Your task to perform on an android device: install app "Adobe Acrobat Reader: Edit PDF" Image 0: 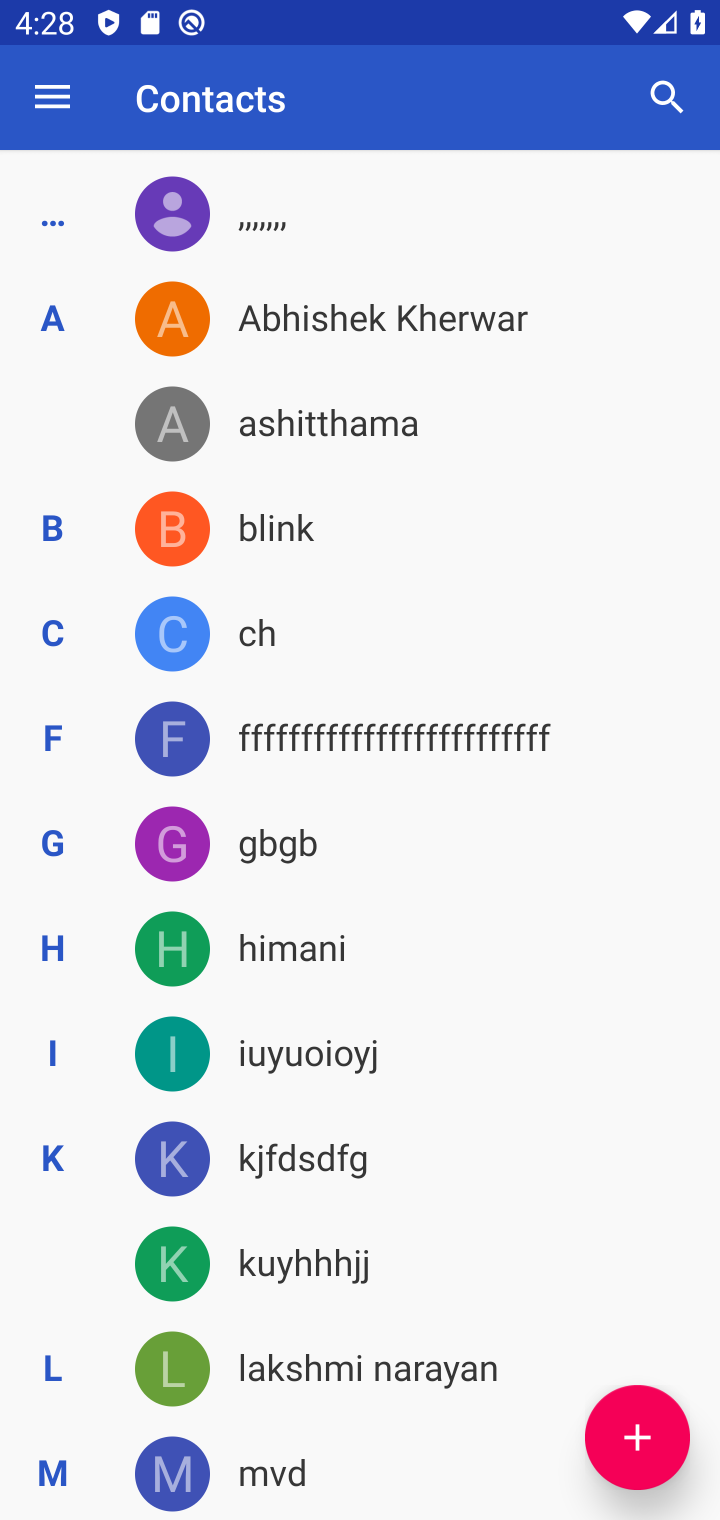
Step 0: press home button
Your task to perform on an android device: install app "Adobe Acrobat Reader: Edit PDF" Image 1: 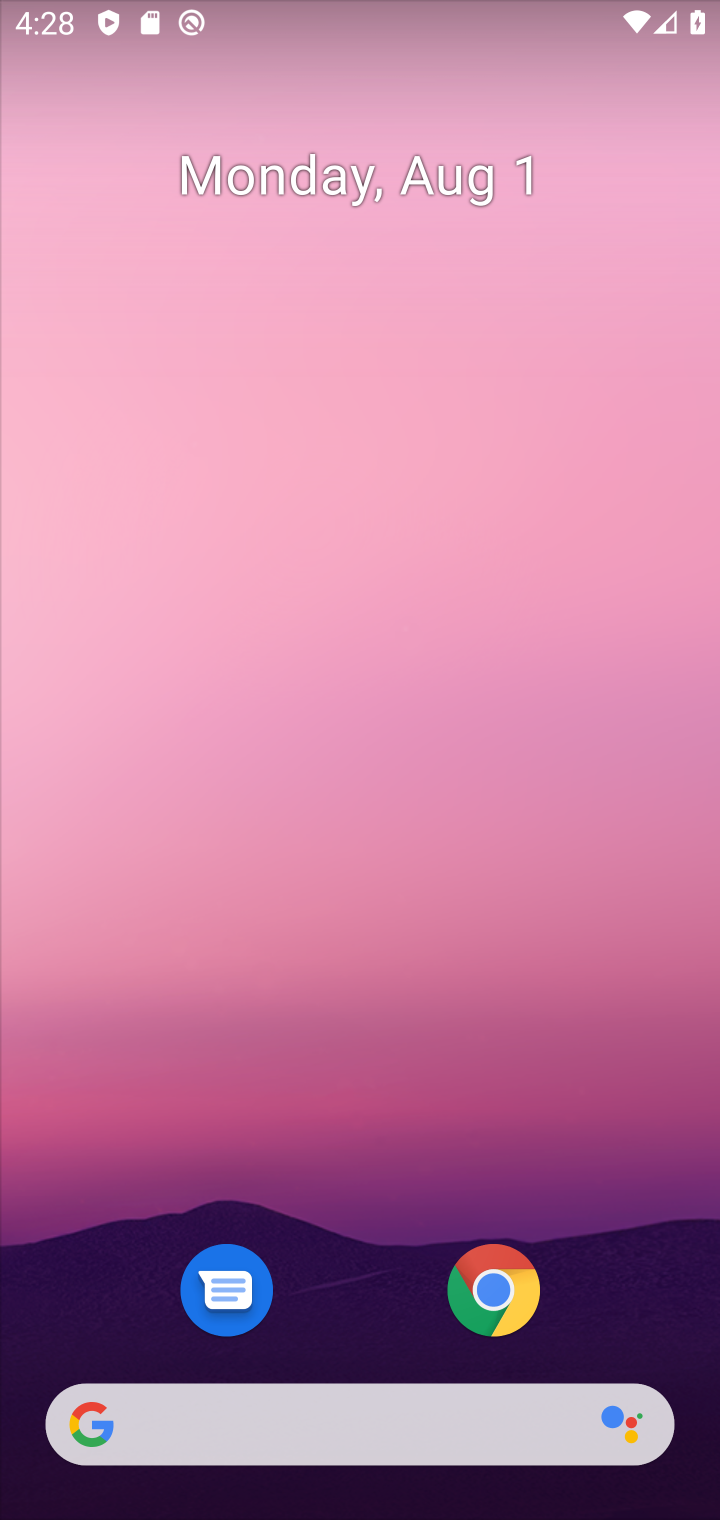
Step 1: drag from (516, 1439) to (285, 21)
Your task to perform on an android device: install app "Adobe Acrobat Reader: Edit PDF" Image 2: 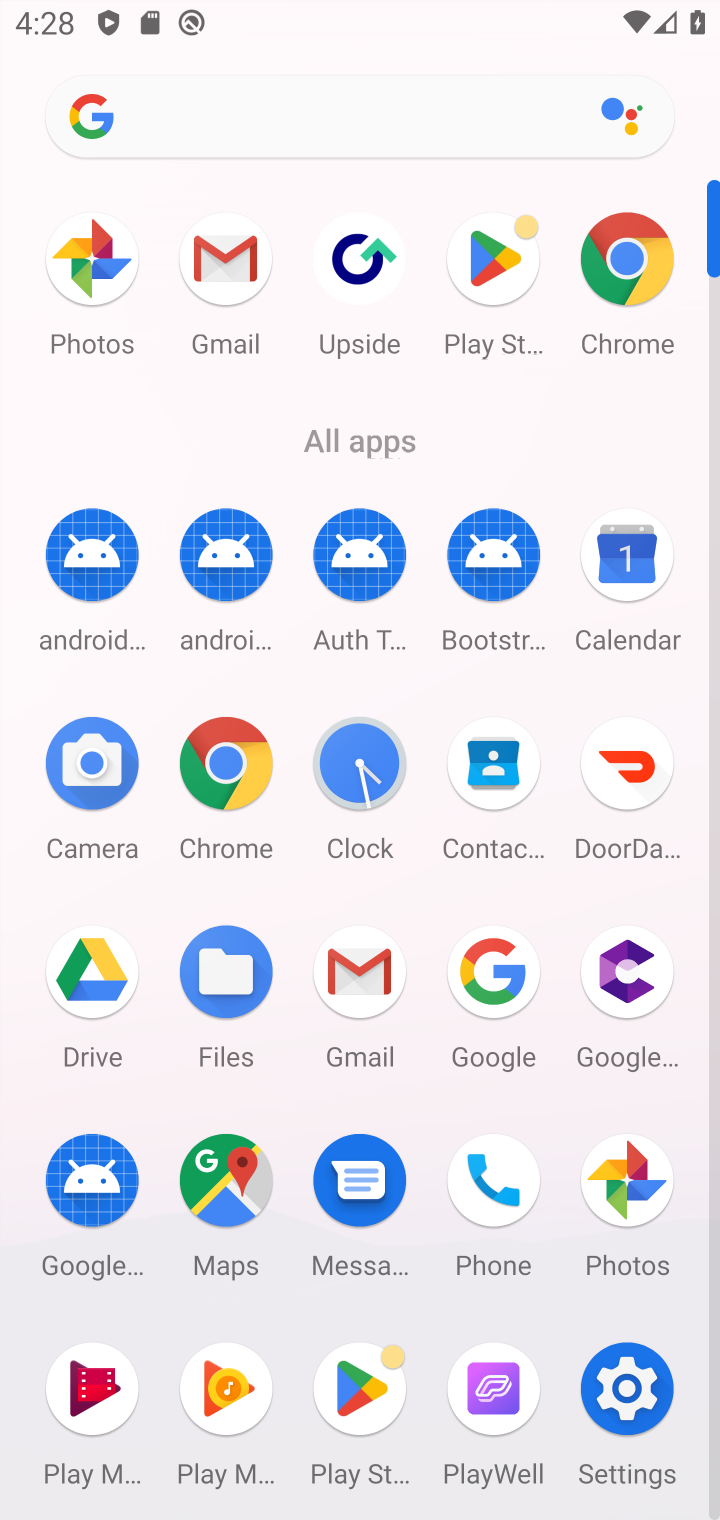
Step 2: click (506, 285)
Your task to perform on an android device: install app "Adobe Acrobat Reader: Edit PDF" Image 3: 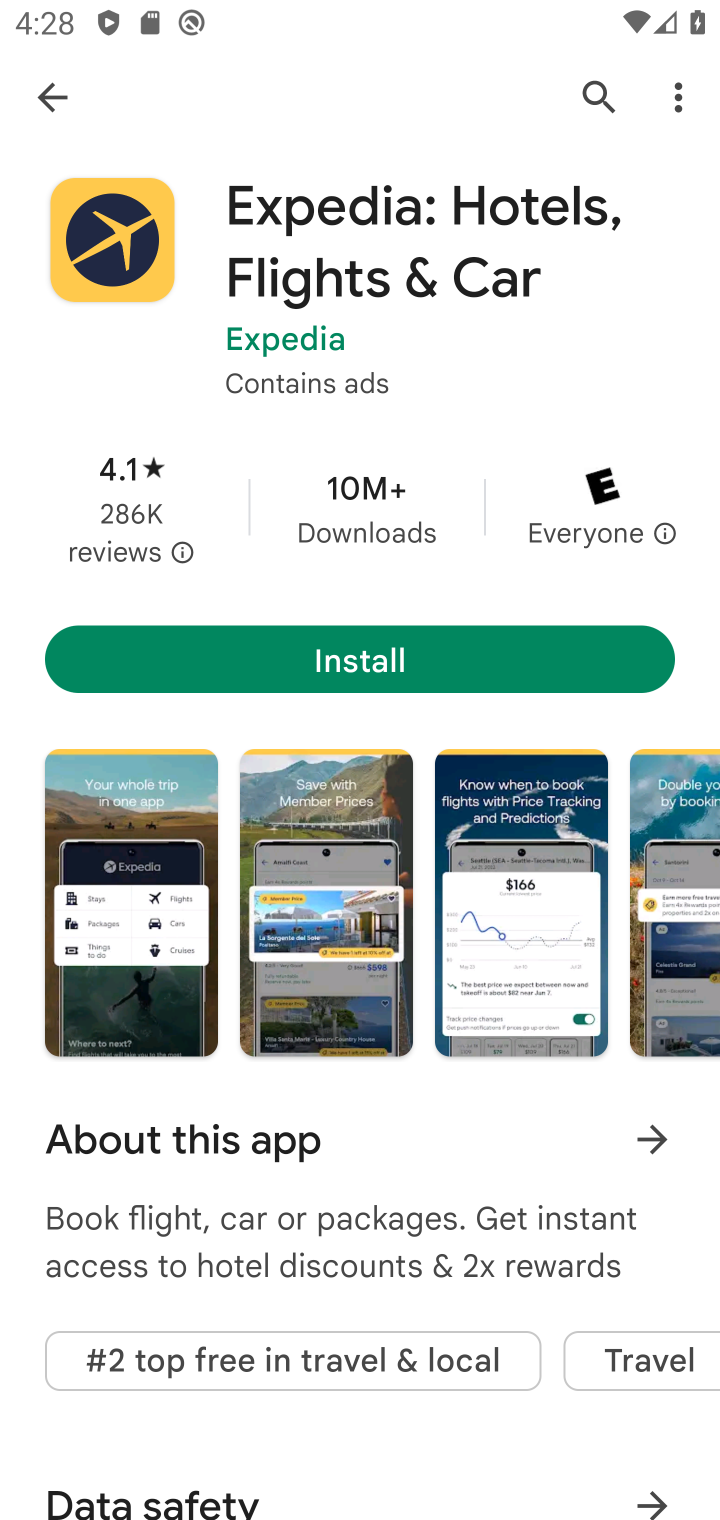
Step 3: click (595, 74)
Your task to perform on an android device: install app "Adobe Acrobat Reader: Edit PDF" Image 4: 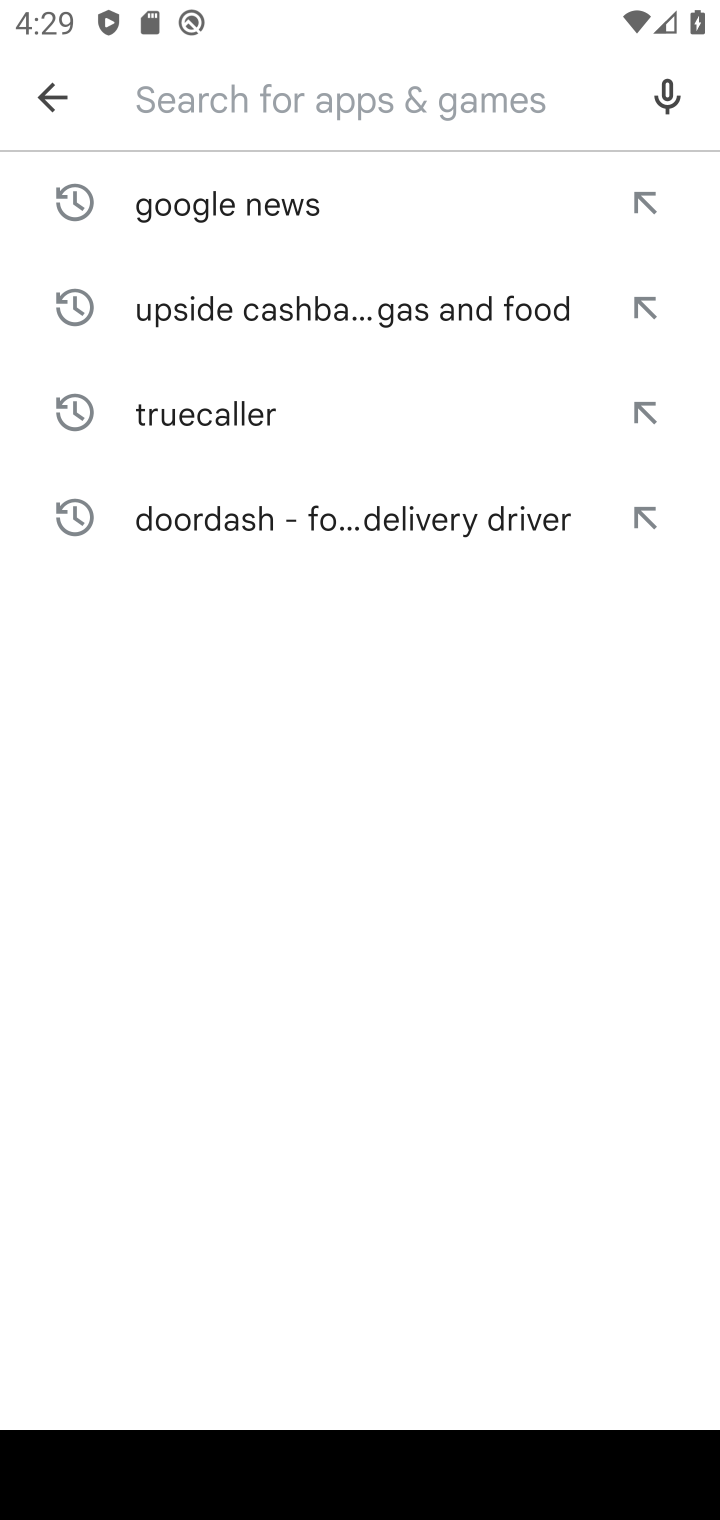
Step 4: type "Adobe acrobat reader: edit PDF"
Your task to perform on an android device: install app "Adobe Acrobat Reader: Edit PDF" Image 5: 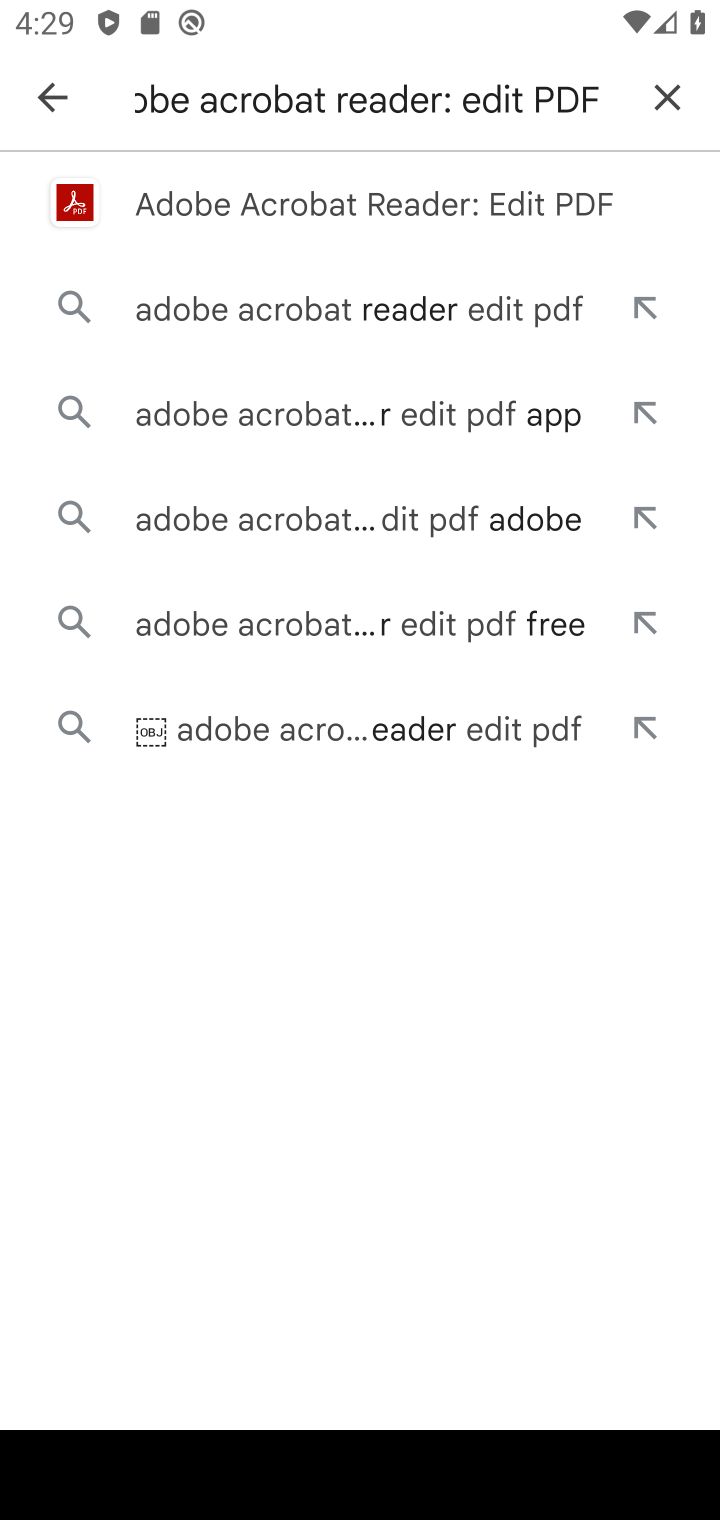
Step 5: click (427, 210)
Your task to perform on an android device: install app "Adobe Acrobat Reader: Edit PDF" Image 6: 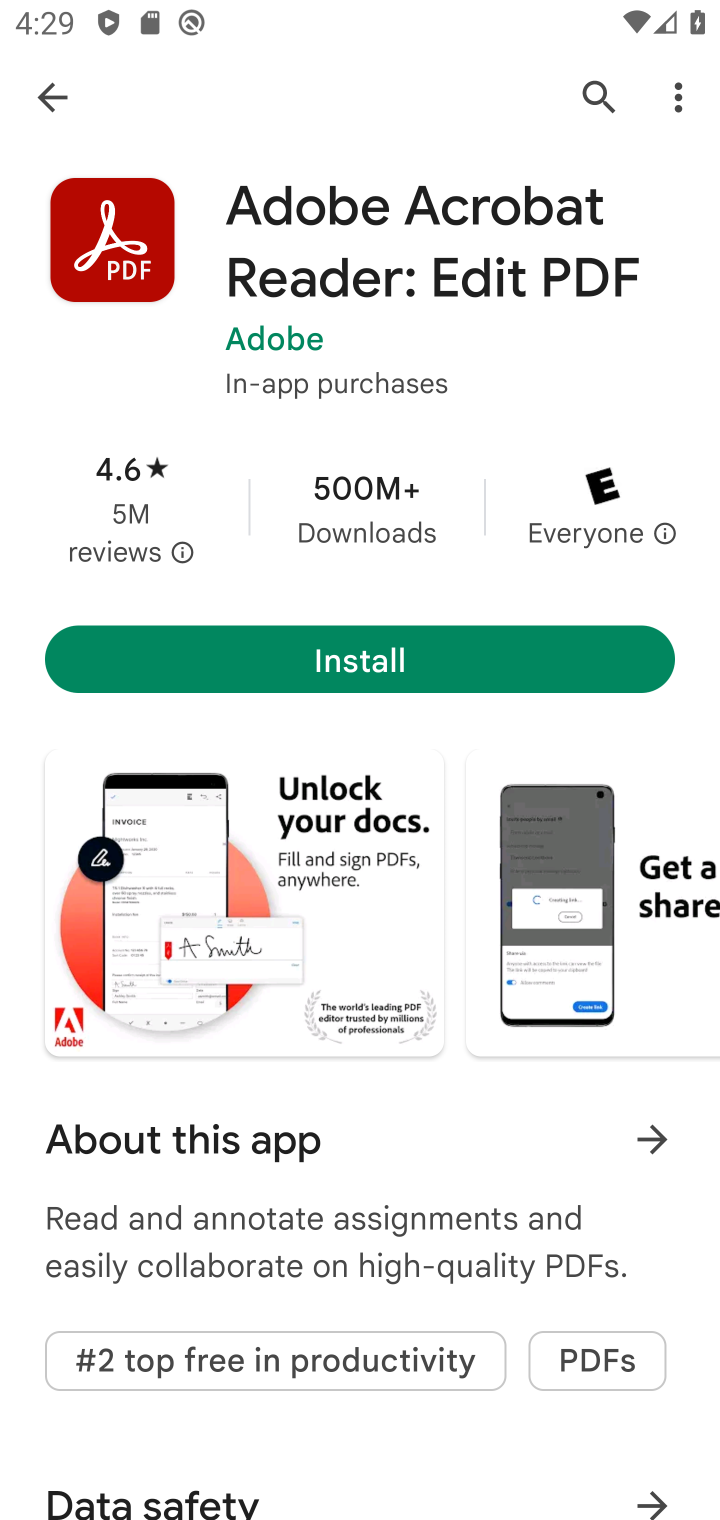
Step 6: click (498, 657)
Your task to perform on an android device: install app "Adobe Acrobat Reader: Edit PDF" Image 7: 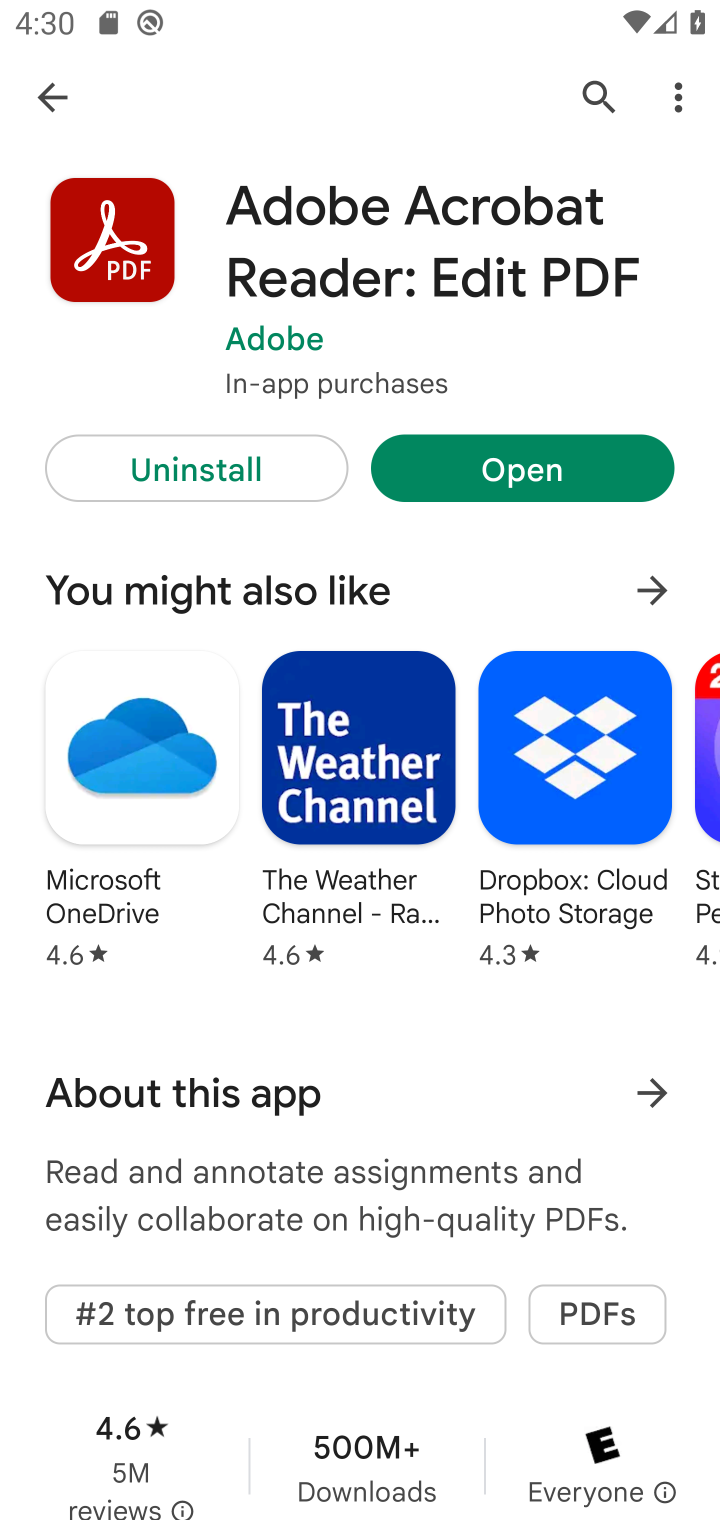
Step 7: task complete